Your task to perform on an android device: Go to Android settings Image 0: 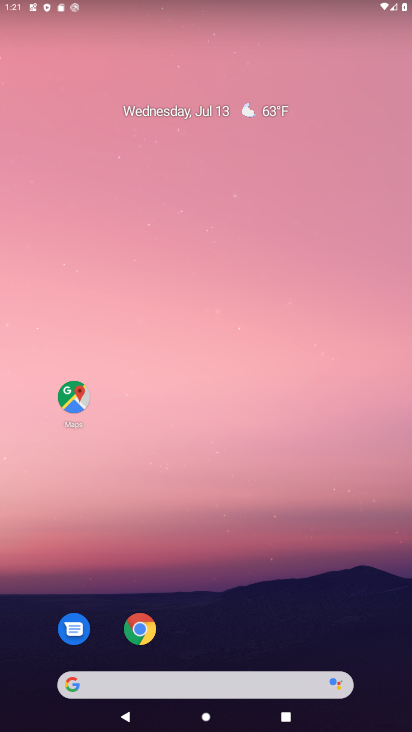
Step 0: click (306, 132)
Your task to perform on an android device: Go to Android settings Image 1: 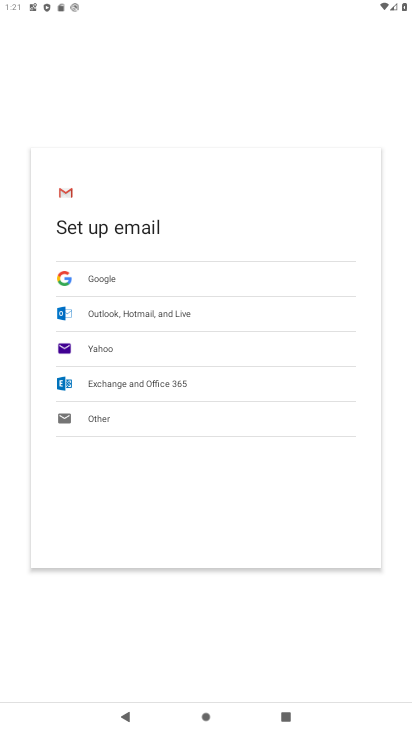
Step 1: drag from (229, 650) to (283, 144)
Your task to perform on an android device: Go to Android settings Image 2: 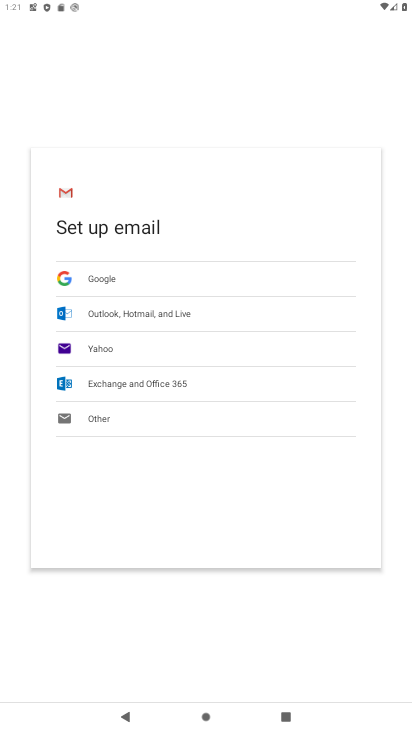
Step 2: press home button
Your task to perform on an android device: Go to Android settings Image 3: 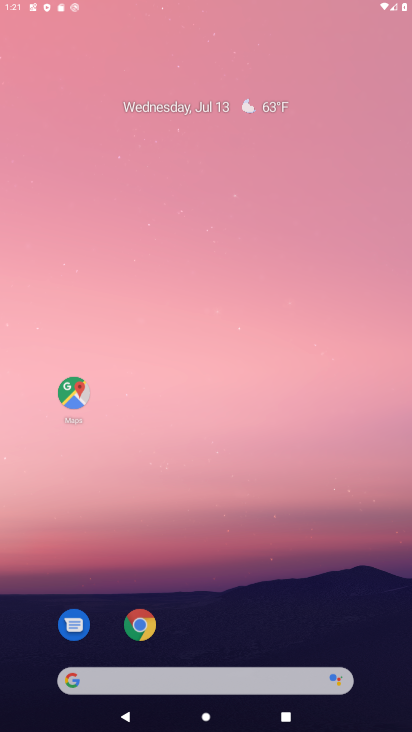
Step 3: drag from (167, 621) to (274, 91)
Your task to perform on an android device: Go to Android settings Image 4: 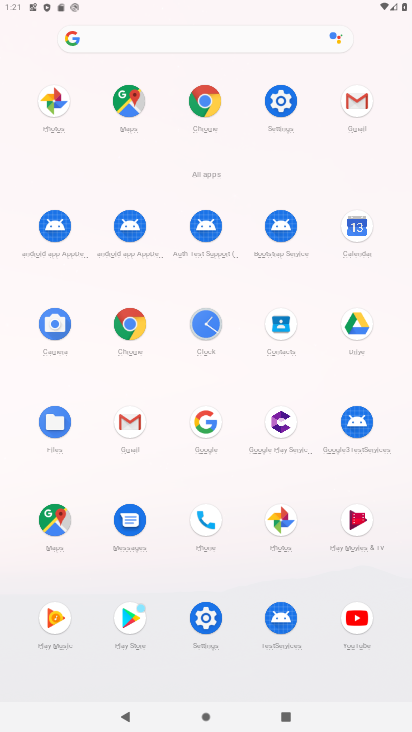
Step 4: click (204, 619)
Your task to perform on an android device: Go to Android settings Image 5: 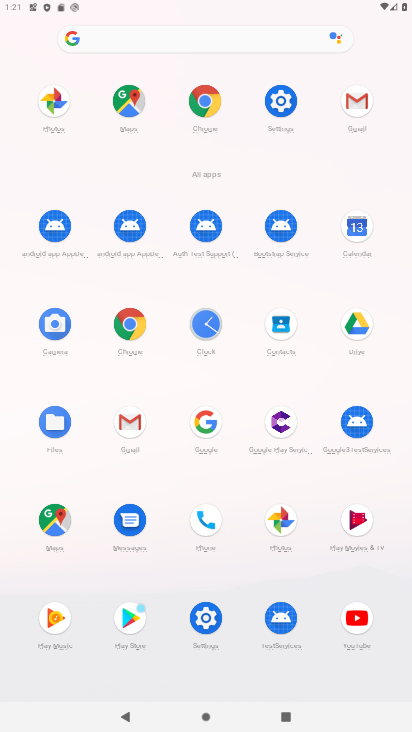
Step 5: click (204, 619)
Your task to perform on an android device: Go to Android settings Image 6: 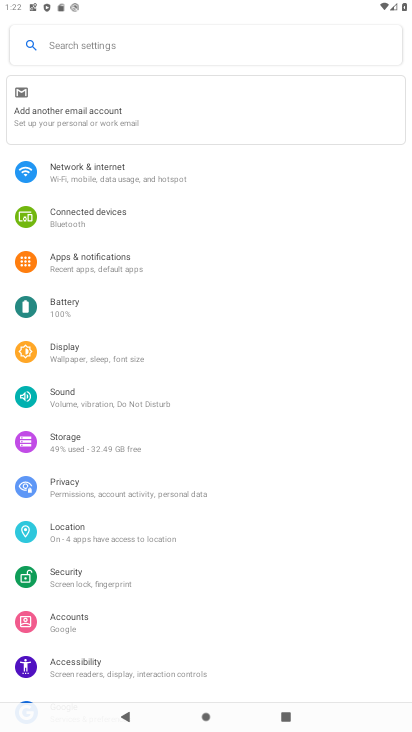
Step 6: drag from (134, 496) to (239, 78)
Your task to perform on an android device: Go to Android settings Image 7: 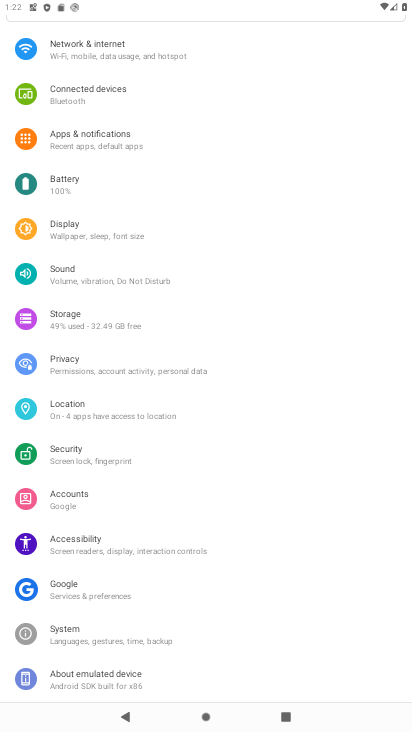
Step 7: click (116, 680)
Your task to perform on an android device: Go to Android settings Image 8: 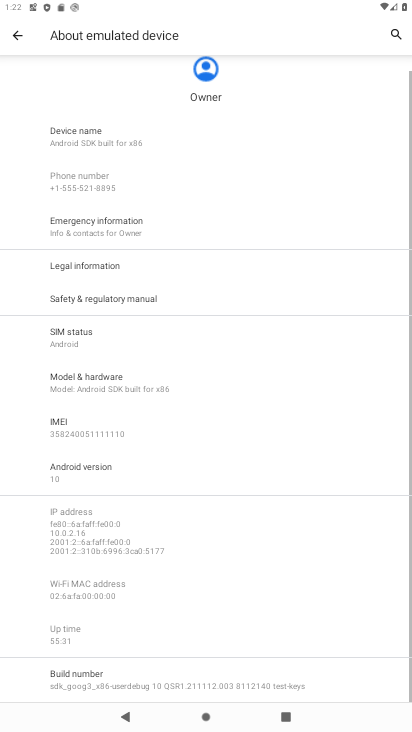
Step 8: drag from (122, 644) to (180, 279)
Your task to perform on an android device: Go to Android settings Image 9: 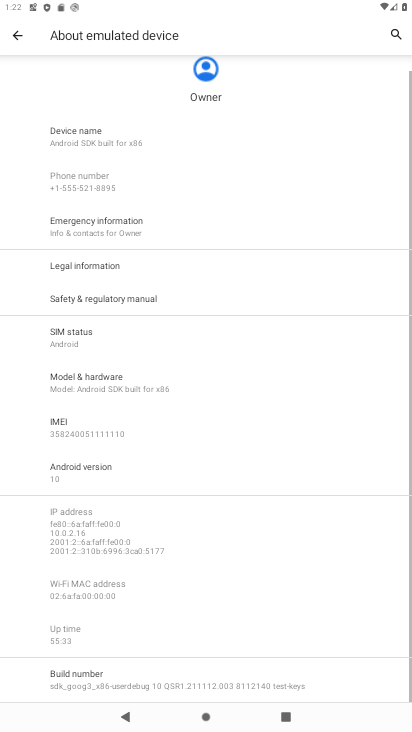
Step 9: click (75, 469)
Your task to perform on an android device: Go to Android settings Image 10: 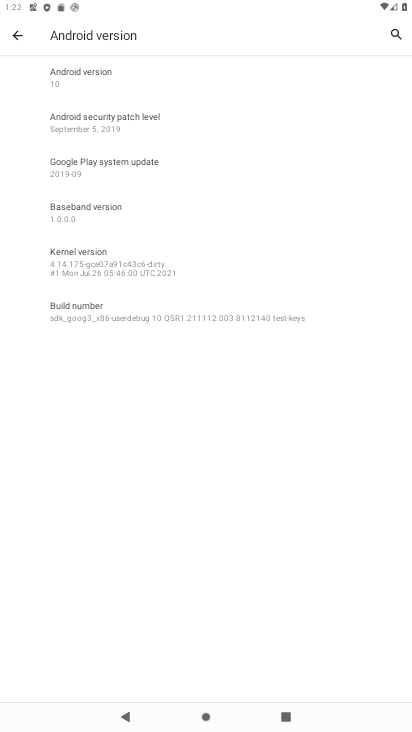
Step 10: drag from (213, 424) to (213, 216)
Your task to perform on an android device: Go to Android settings Image 11: 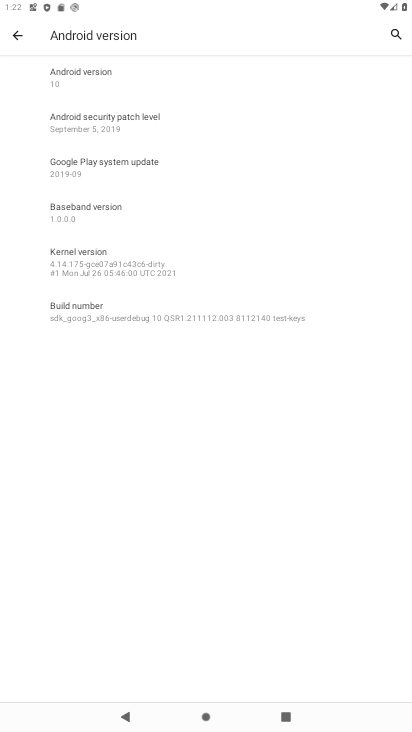
Step 11: click (122, 77)
Your task to perform on an android device: Go to Android settings Image 12: 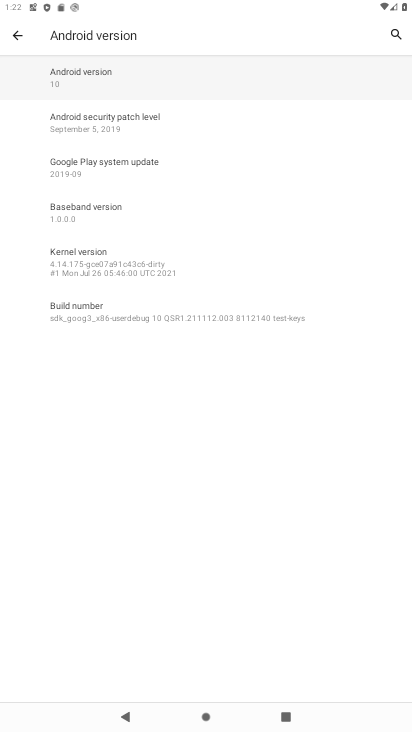
Step 12: task complete